Your task to perform on an android device: Open calendar and show me the third week of next month Image 0: 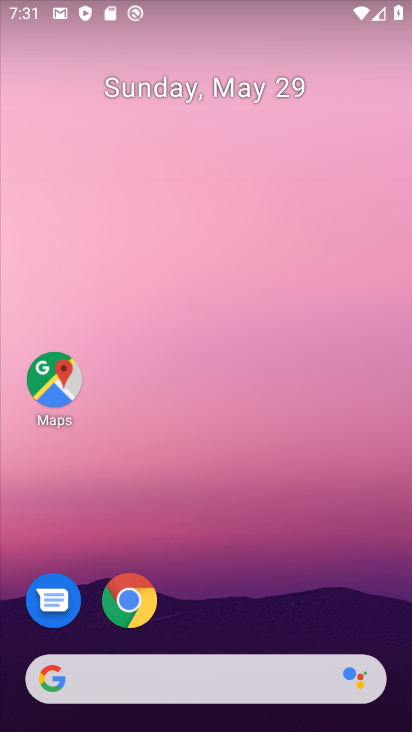
Step 0: drag from (253, 601) to (270, 157)
Your task to perform on an android device: Open calendar and show me the third week of next month Image 1: 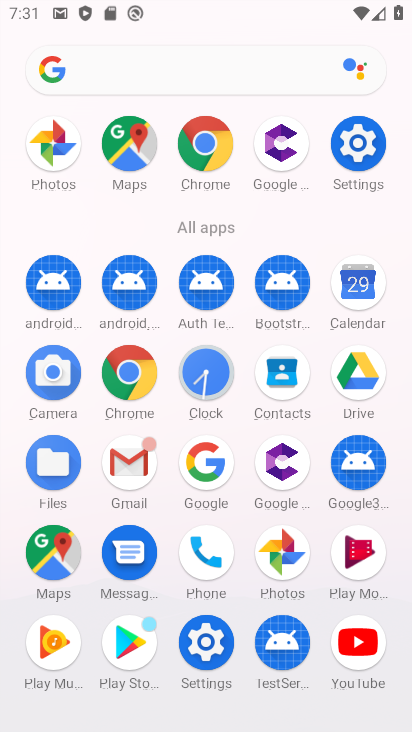
Step 1: click (342, 299)
Your task to perform on an android device: Open calendar and show me the third week of next month Image 2: 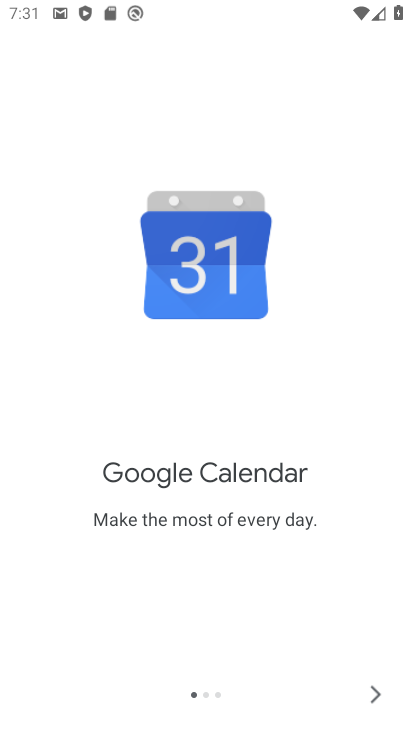
Step 2: click (379, 687)
Your task to perform on an android device: Open calendar and show me the third week of next month Image 3: 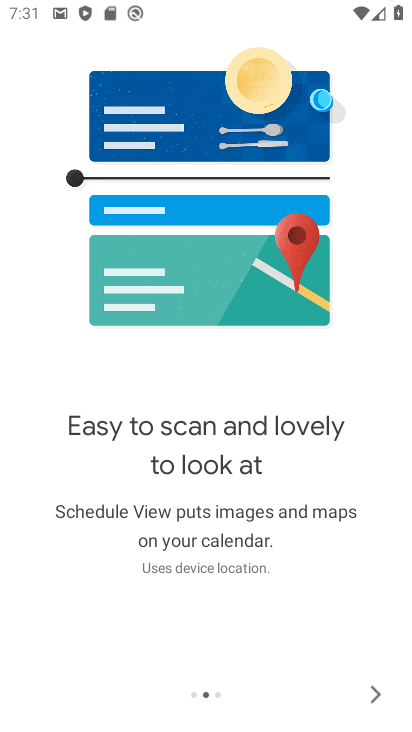
Step 3: click (375, 685)
Your task to perform on an android device: Open calendar and show me the third week of next month Image 4: 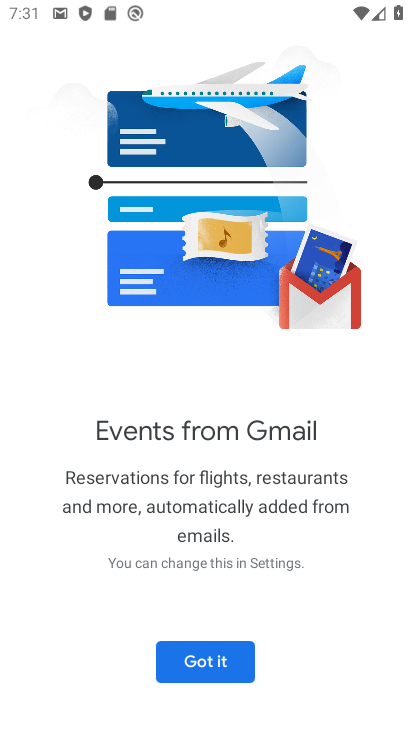
Step 4: click (207, 659)
Your task to perform on an android device: Open calendar and show me the third week of next month Image 5: 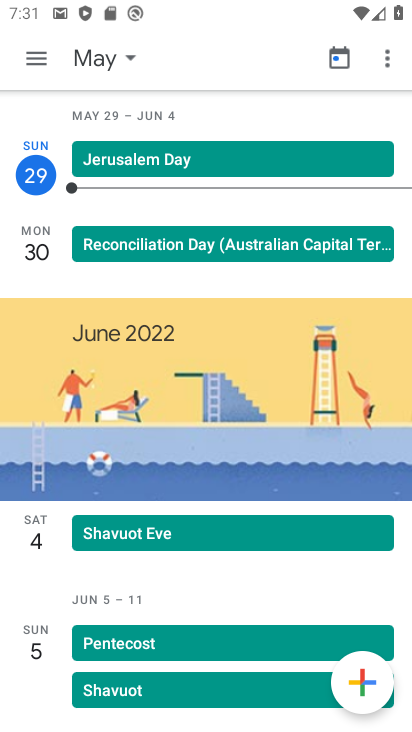
Step 5: click (101, 63)
Your task to perform on an android device: Open calendar and show me the third week of next month Image 6: 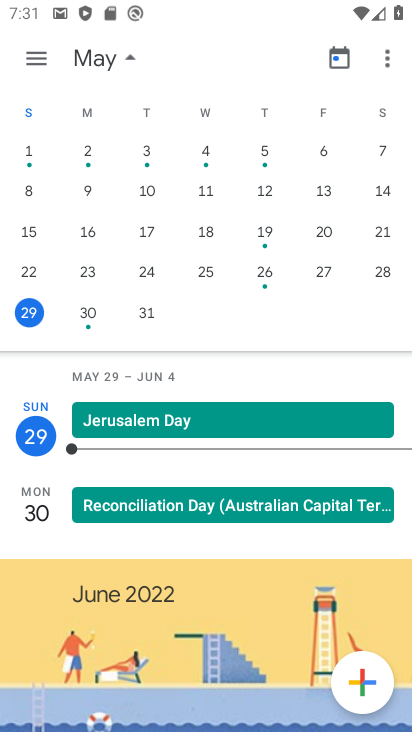
Step 6: drag from (331, 245) to (0, 242)
Your task to perform on an android device: Open calendar and show me the third week of next month Image 7: 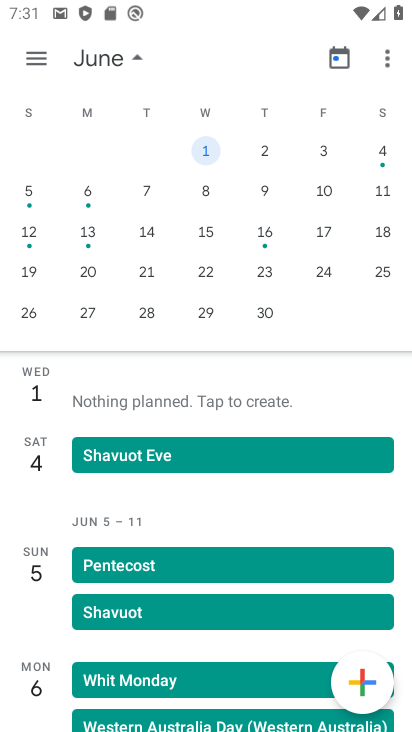
Step 7: click (28, 229)
Your task to perform on an android device: Open calendar and show me the third week of next month Image 8: 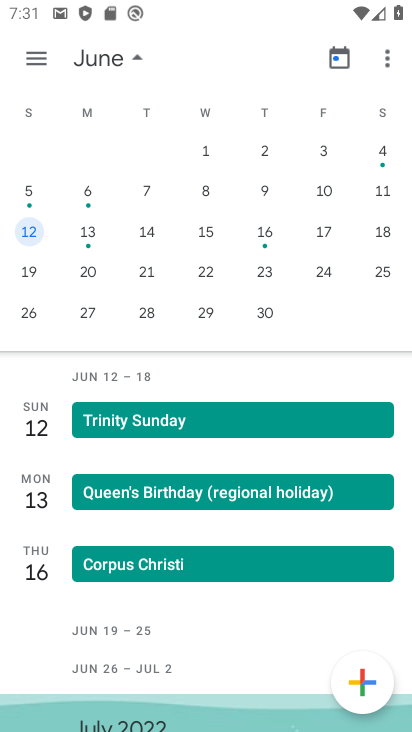
Step 8: task complete